Your task to perform on an android device: install app "Pluto TV - Live TV and Movies" Image 0: 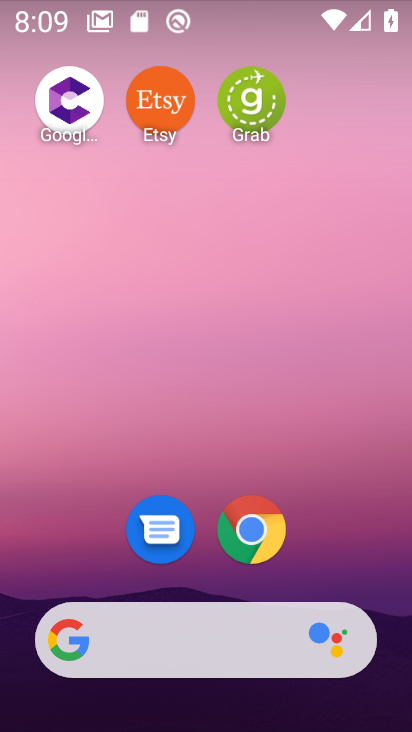
Step 0: drag from (213, 728) to (188, 211)
Your task to perform on an android device: install app "Pluto TV - Live TV and Movies" Image 1: 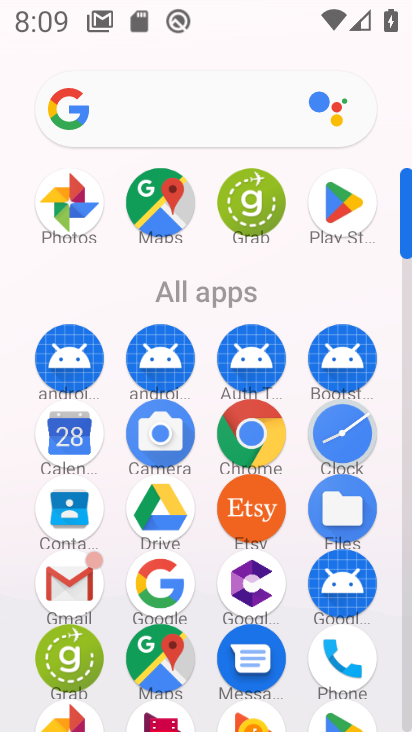
Step 1: click (346, 212)
Your task to perform on an android device: install app "Pluto TV - Live TV and Movies" Image 2: 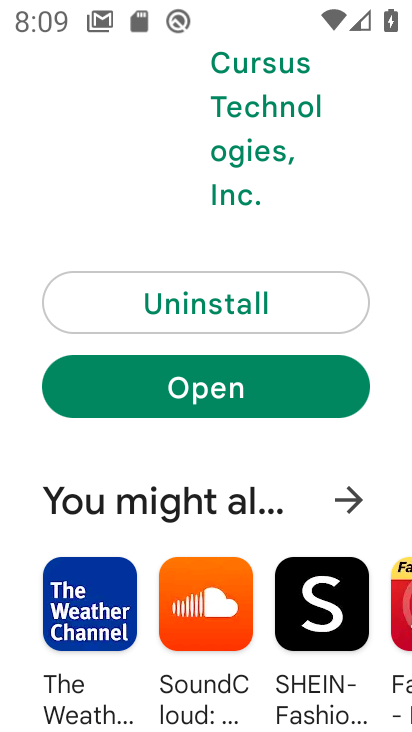
Step 2: drag from (341, 146) to (354, 541)
Your task to perform on an android device: install app "Pluto TV - Live TV and Movies" Image 3: 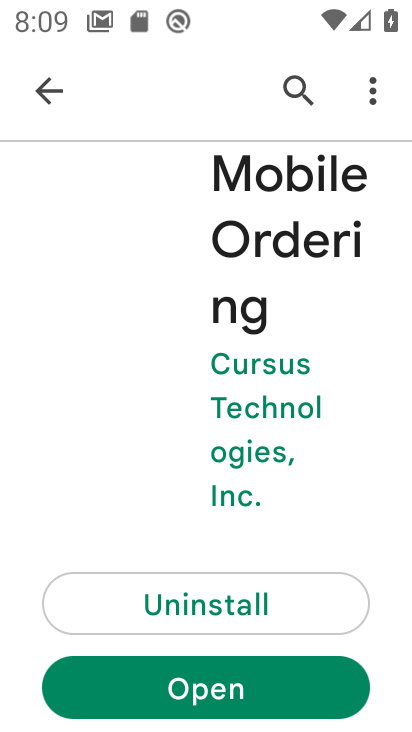
Step 3: click (296, 79)
Your task to perform on an android device: install app "Pluto TV - Live TV and Movies" Image 4: 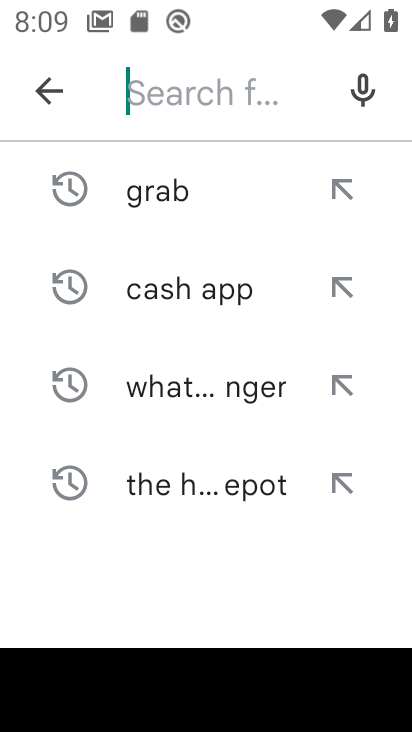
Step 4: type "Pluto TV - Live TV and Movies"
Your task to perform on an android device: install app "Pluto TV - Live TV and Movies" Image 5: 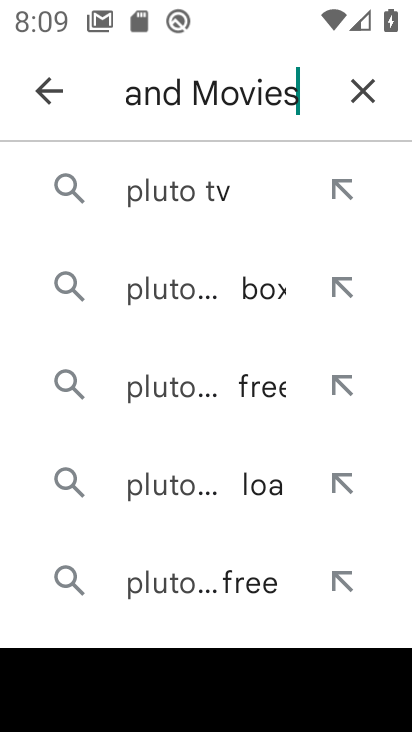
Step 5: type ""
Your task to perform on an android device: install app "Pluto TV - Live TV and Movies" Image 6: 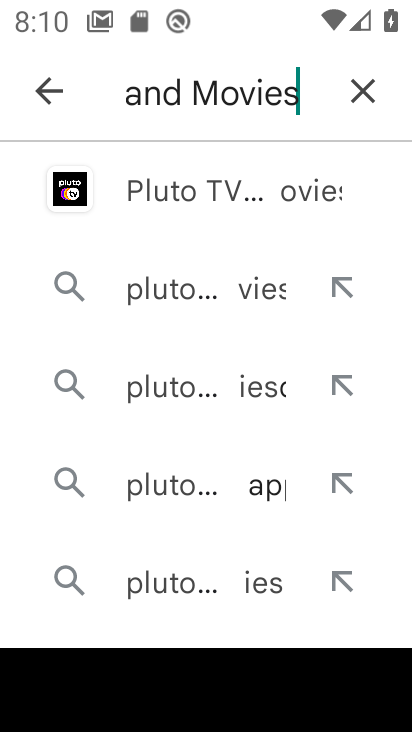
Step 6: click (177, 197)
Your task to perform on an android device: install app "Pluto TV - Live TV and Movies" Image 7: 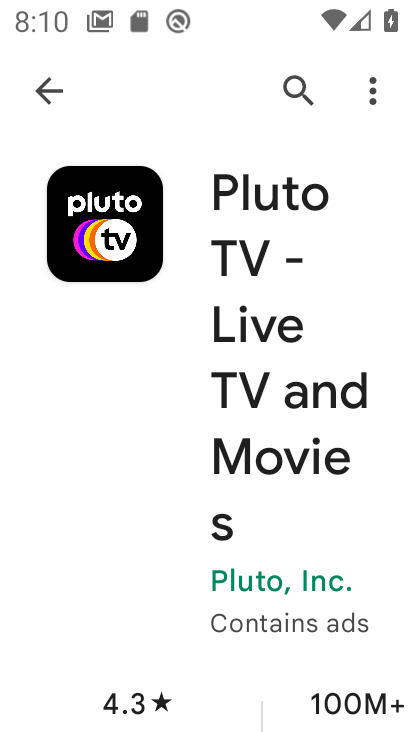
Step 7: drag from (250, 676) to (239, 325)
Your task to perform on an android device: install app "Pluto TV - Live TV and Movies" Image 8: 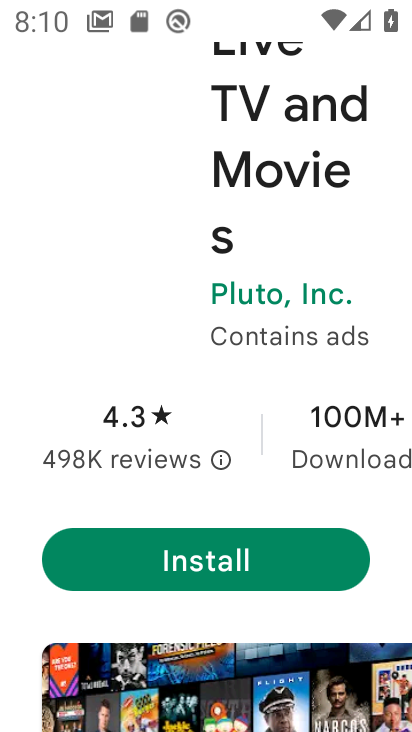
Step 8: click (229, 566)
Your task to perform on an android device: install app "Pluto TV - Live TV and Movies" Image 9: 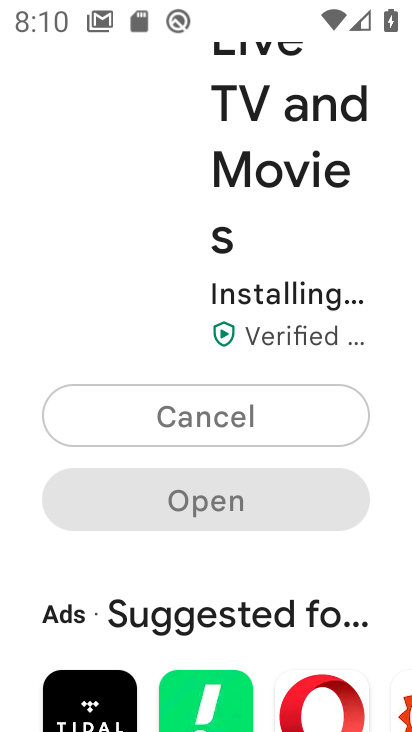
Step 9: task complete